Your task to perform on an android device: turn pop-ups off in chrome Image 0: 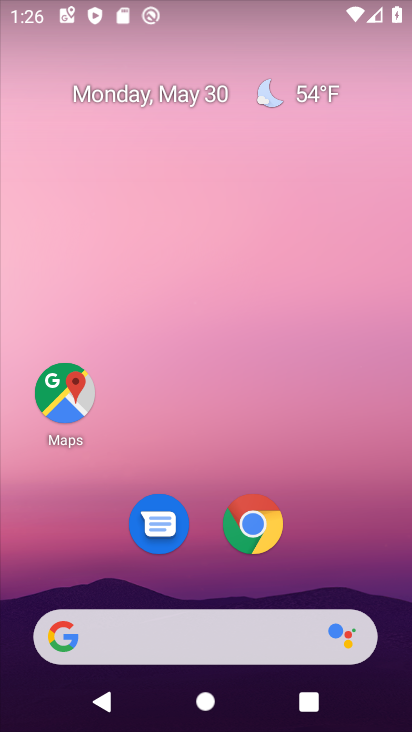
Step 0: click (238, 508)
Your task to perform on an android device: turn pop-ups off in chrome Image 1: 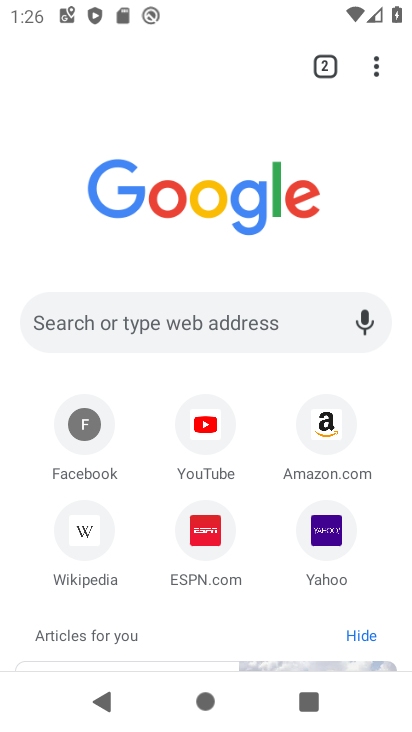
Step 1: click (374, 70)
Your task to perform on an android device: turn pop-ups off in chrome Image 2: 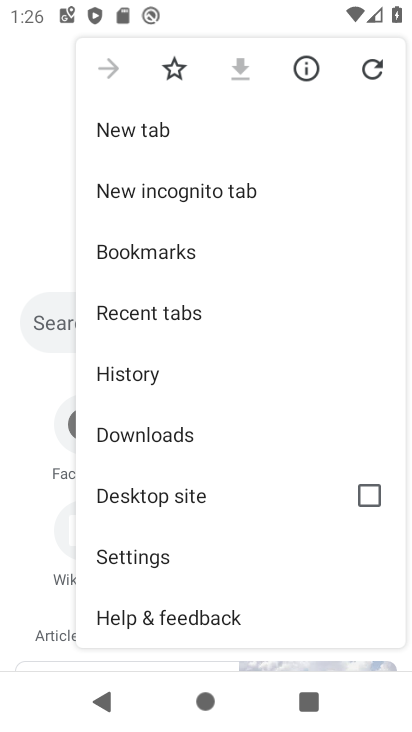
Step 2: drag from (265, 445) to (281, 212)
Your task to perform on an android device: turn pop-ups off in chrome Image 3: 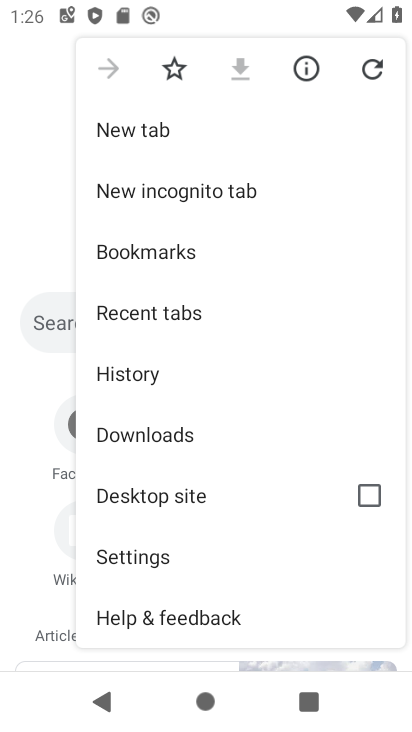
Step 3: click (228, 554)
Your task to perform on an android device: turn pop-ups off in chrome Image 4: 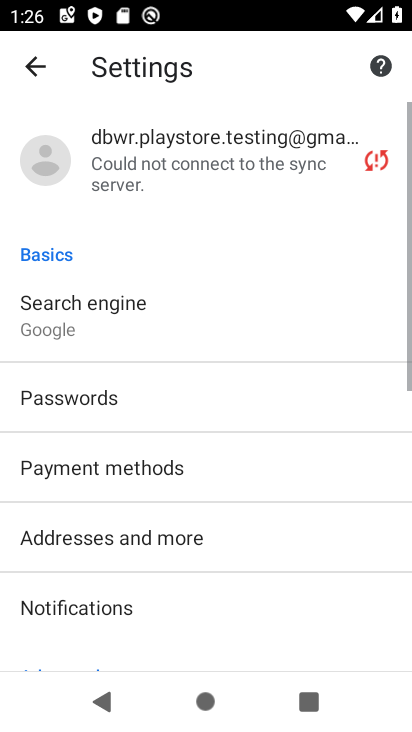
Step 4: drag from (283, 550) to (287, 177)
Your task to perform on an android device: turn pop-ups off in chrome Image 5: 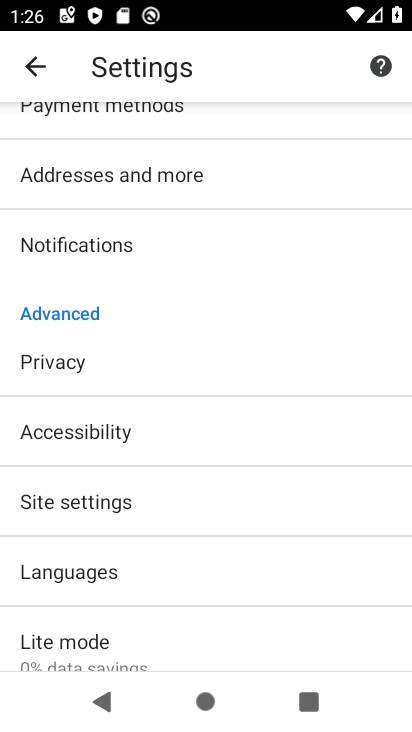
Step 5: click (210, 496)
Your task to perform on an android device: turn pop-ups off in chrome Image 6: 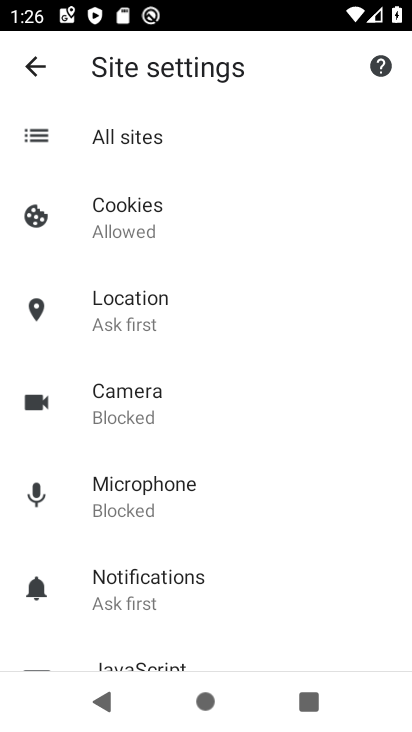
Step 6: drag from (218, 506) to (260, 135)
Your task to perform on an android device: turn pop-ups off in chrome Image 7: 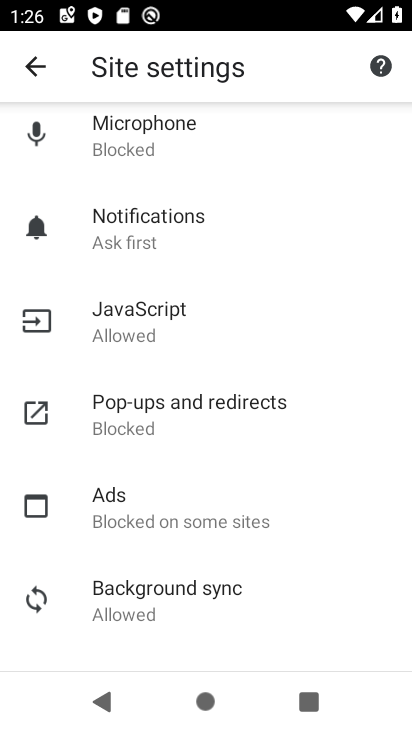
Step 7: click (248, 402)
Your task to perform on an android device: turn pop-ups off in chrome Image 8: 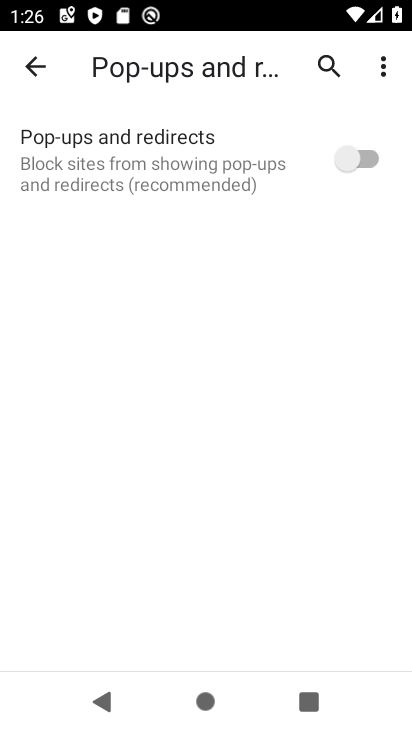
Step 8: task complete